Your task to perform on an android device: Open the stopwatch Image 0: 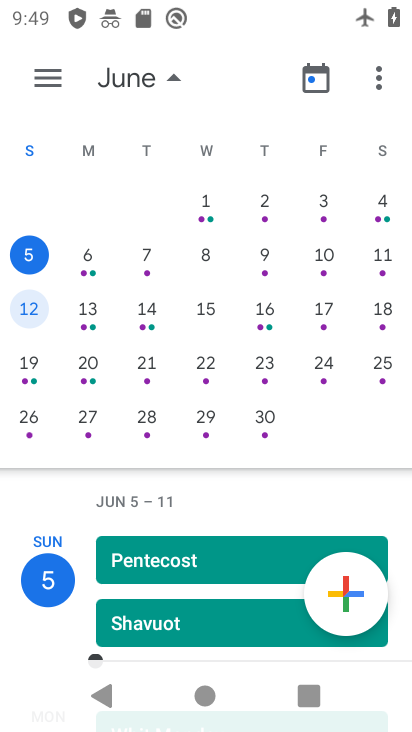
Step 0: press home button
Your task to perform on an android device: Open the stopwatch Image 1: 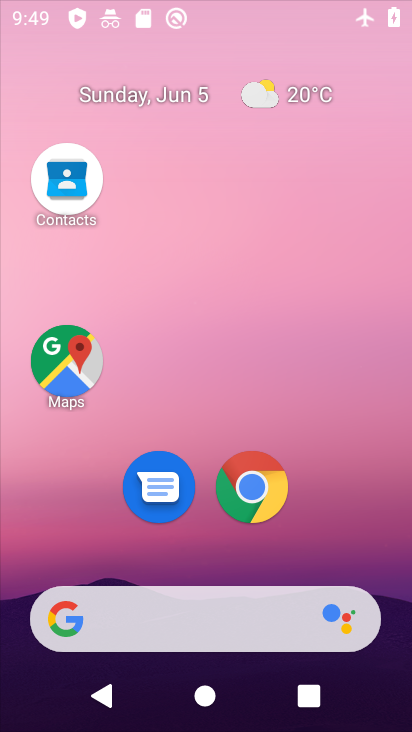
Step 1: drag from (226, 673) to (163, 125)
Your task to perform on an android device: Open the stopwatch Image 2: 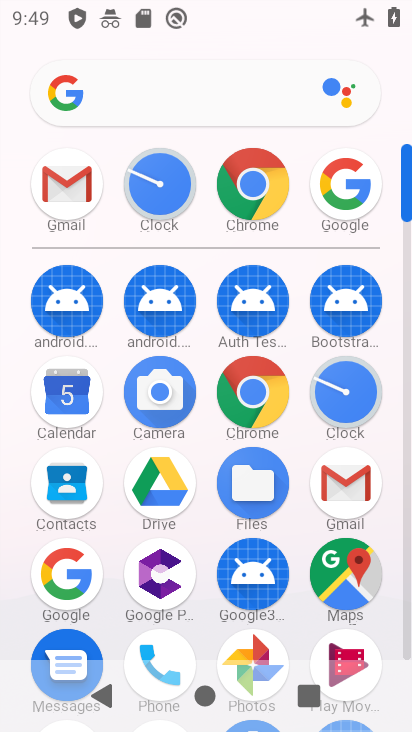
Step 2: click (365, 411)
Your task to perform on an android device: Open the stopwatch Image 3: 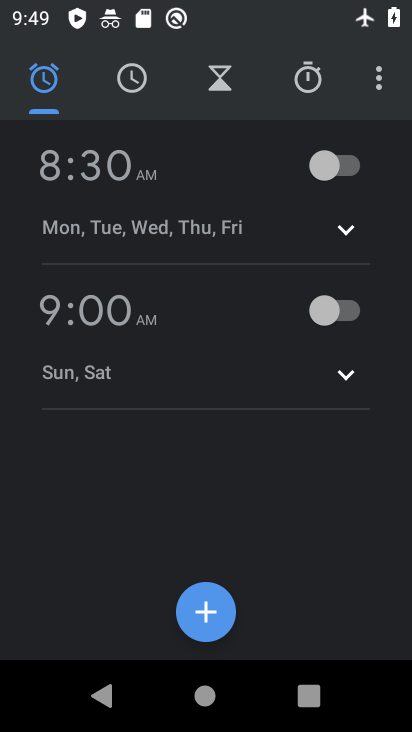
Step 3: click (373, 88)
Your task to perform on an android device: Open the stopwatch Image 4: 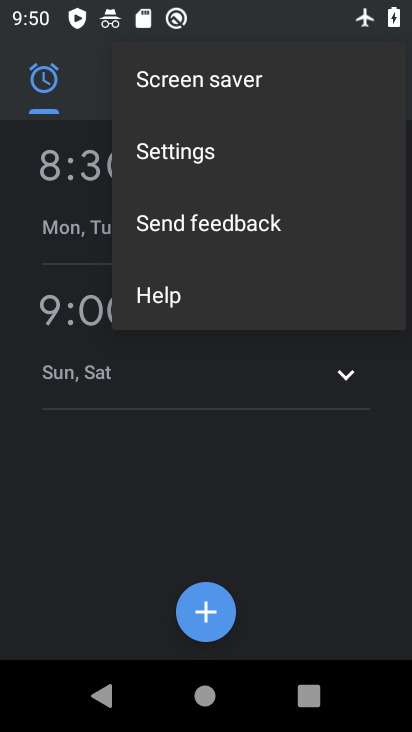
Step 4: click (123, 508)
Your task to perform on an android device: Open the stopwatch Image 5: 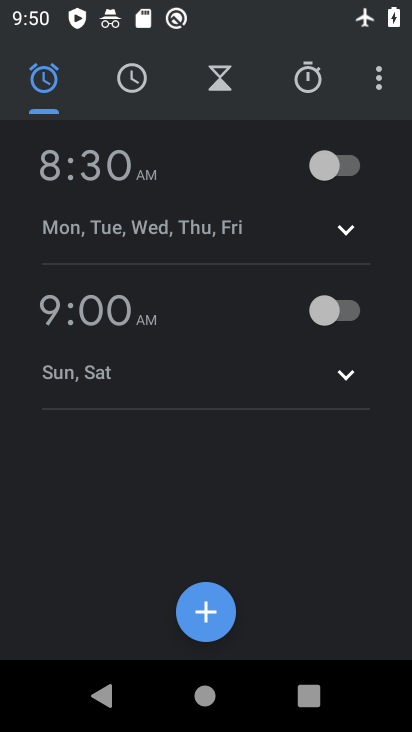
Step 5: click (299, 92)
Your task to perform on an android device: Open the stopwatch Image 6: 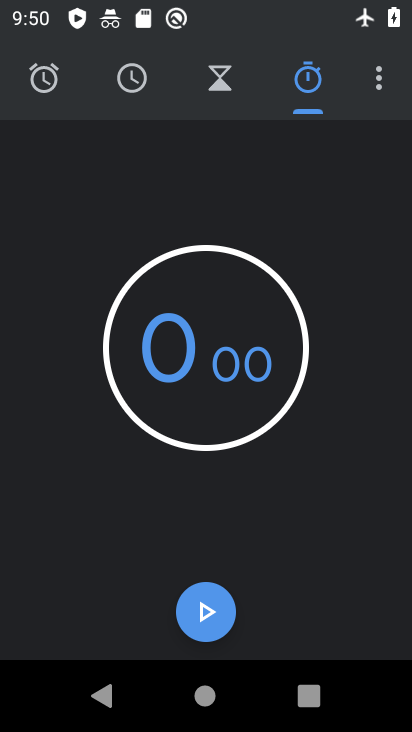
Step 6: task complete